Your task to perform on an android device: Open calendar and show me the fourth week of next month Image 0: 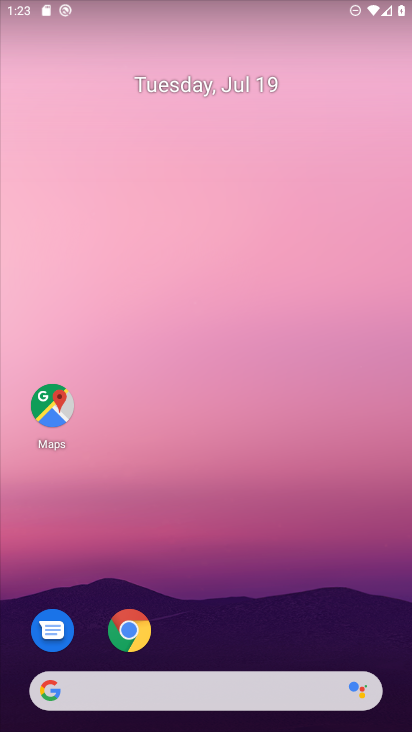
Step 0: press home button
Your task to perform on an android device: Open calendar and show me the fourth week of next month Image 1: 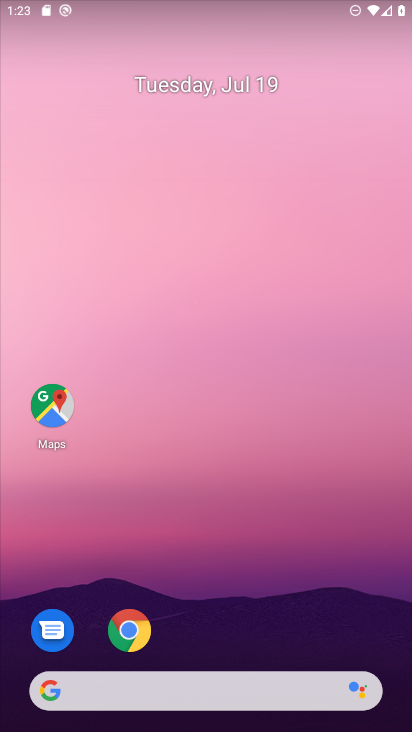
Step 1: drag from (198, 695) to (302, 151)
Your task to perform on an android device: Open calendar and show me the fourth week of next month Image 2: 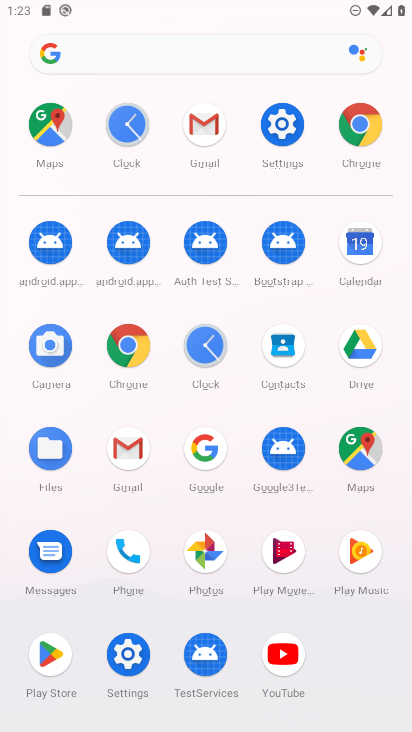
Step 2: click (364, 250)
Your task to perform on an android device: Open calendar and show me the fourth week of next month Image 3: 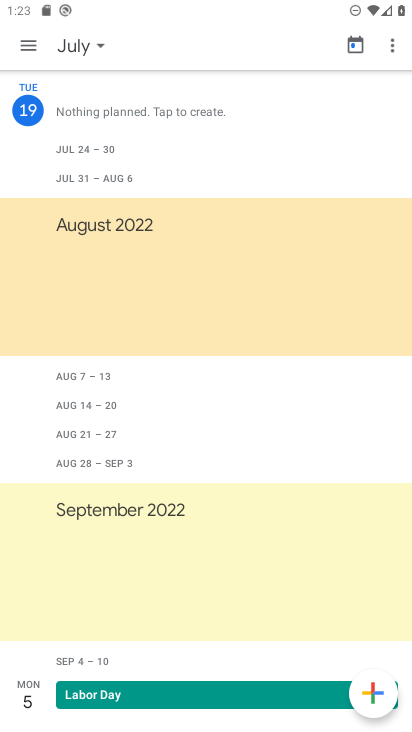
Step 3: click (78, 50)
Your task to perform on an android device: Open calendar and show me the fourth week of next month Image 4: 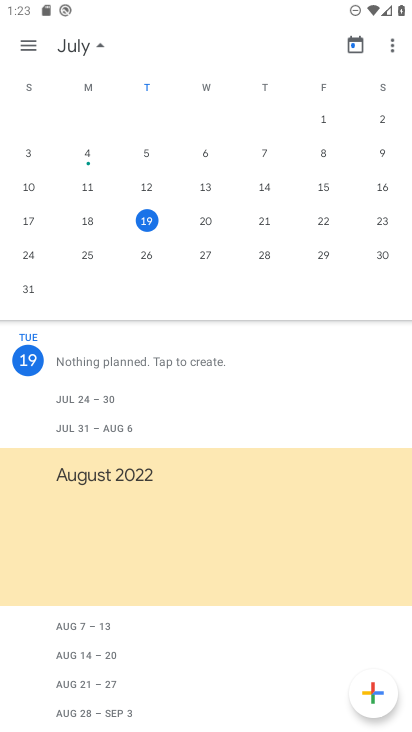
Step 4: drag from (366, 209) to (46, 169)
Your task to perform on an android device: Open calendar and show me the fourth week of next month Image 5: 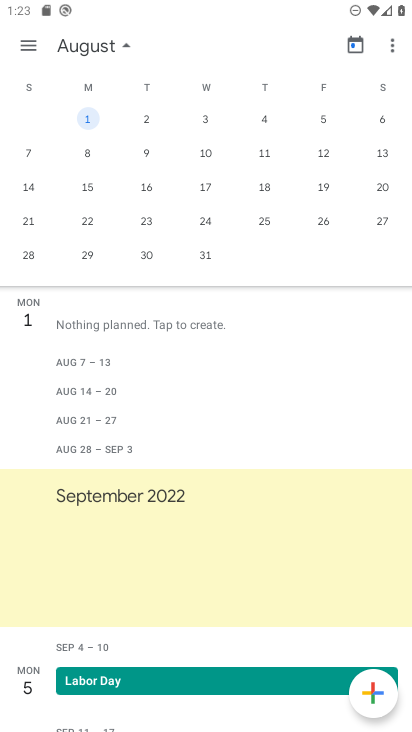
Step 5: click (28, 214)
Your task to perform on an android device: Open calendar and show me the fourth week of next month Image 6: 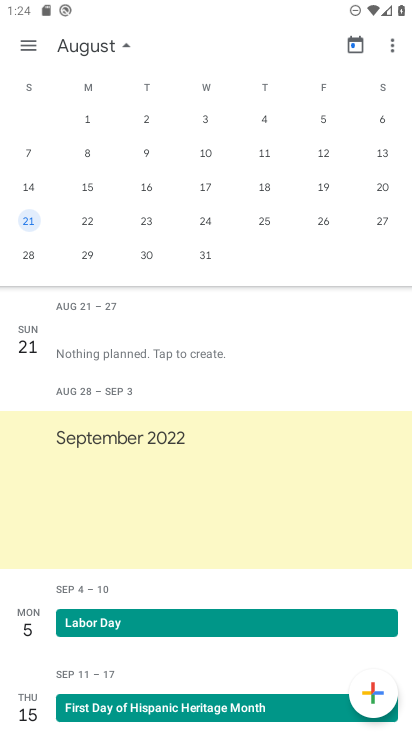
Step 6: click (28, 42)
Your task to perform on an android device: Open calendar and show me the fourth week of next month Image 7: 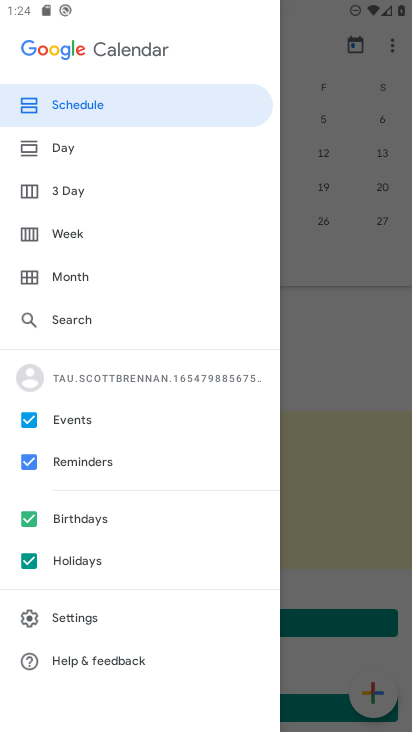
Step 7: click (73, 231)
Your task to perform on an android device: Open calendar and show me the fourth week of next month Image 8: 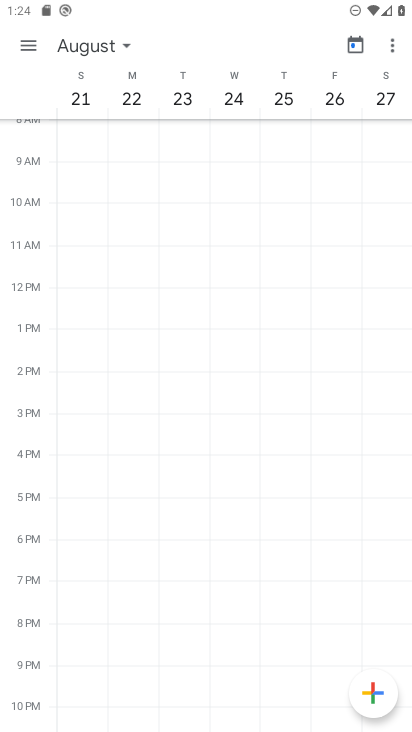
Step 8: task complete